Your task to perform on an android device: open app "Paramount+ | Peak Streaming" (install if not already installed) Image 0: 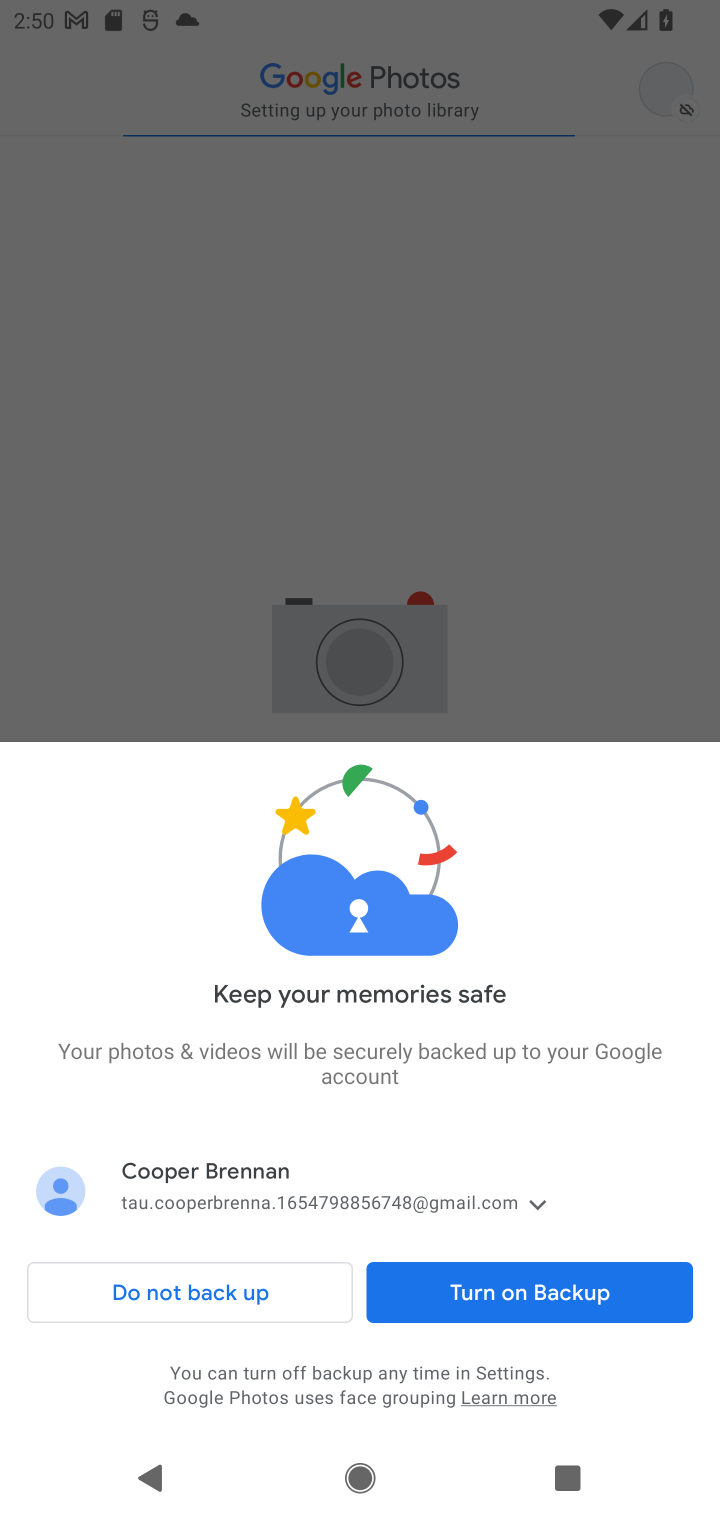
Step 0: press home button
Your task to perform on an android device: open app "Paramount+ | Peak Streaming" (install if not already installed) Image 1: 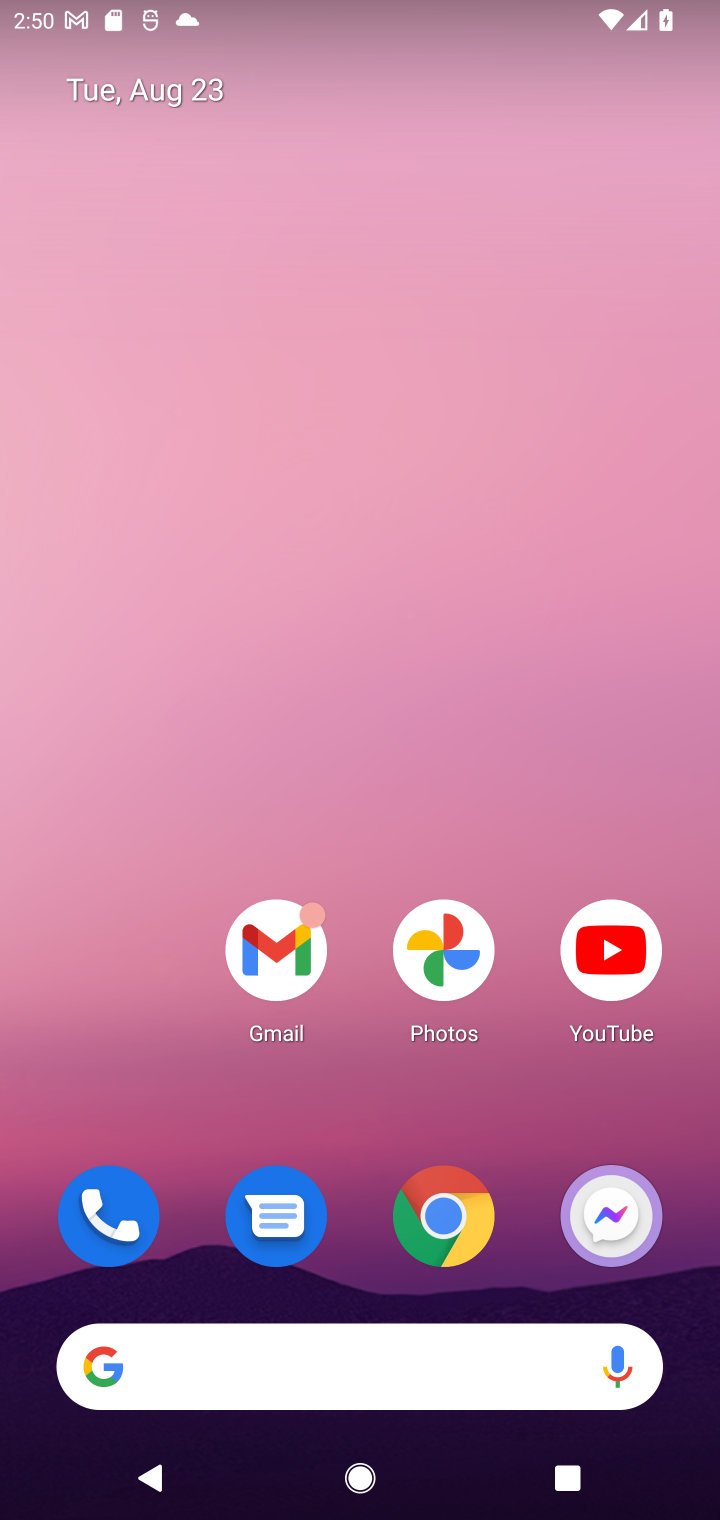
Step 1: drag from (322, 1228) to (433, 200)
Your task to perform on an android device: open app "Paramount+ | Peak Streaming" (install if not already installed) Image 2: 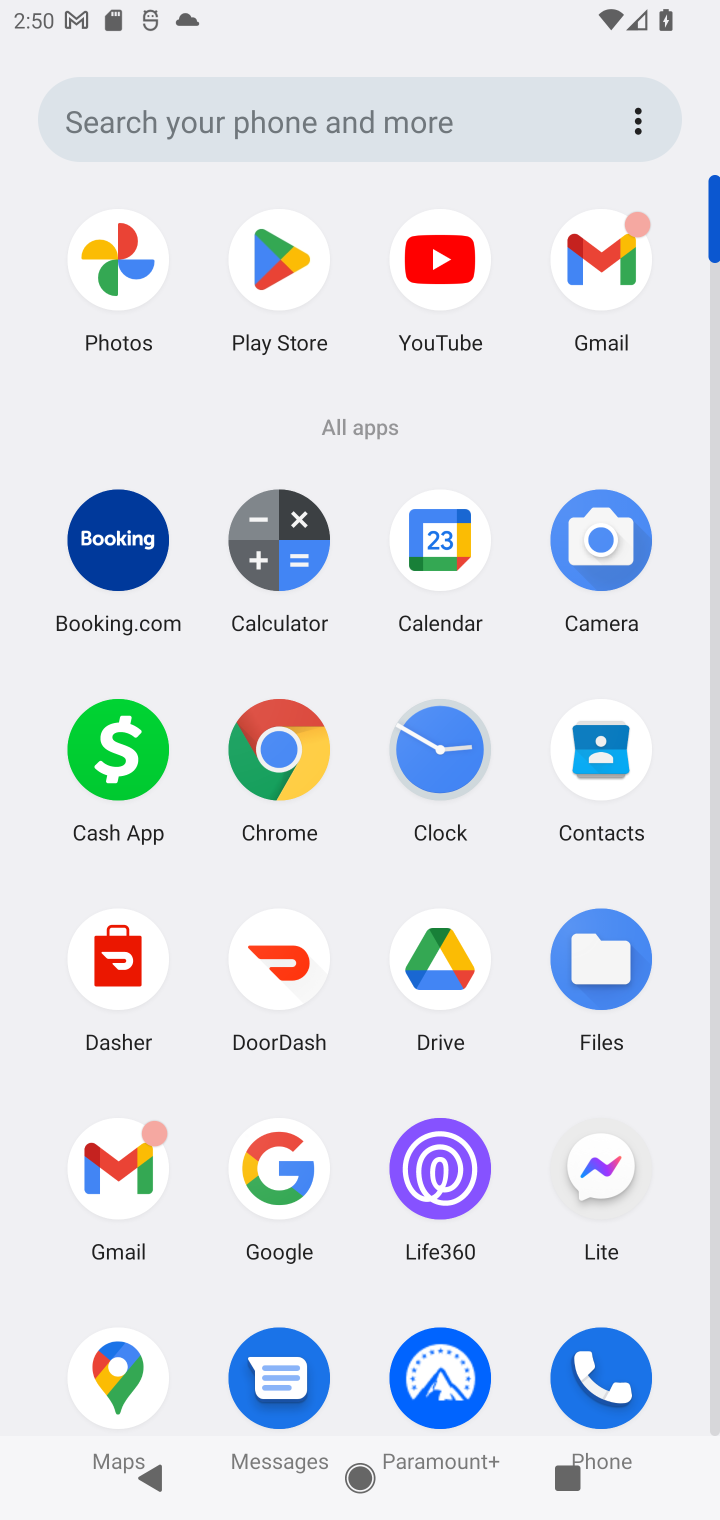
Step 2: click (250, 235)
Your task to perform on an android device: open app "Paramount+ | Peak Streaming" (install if not already installed) Image 3: 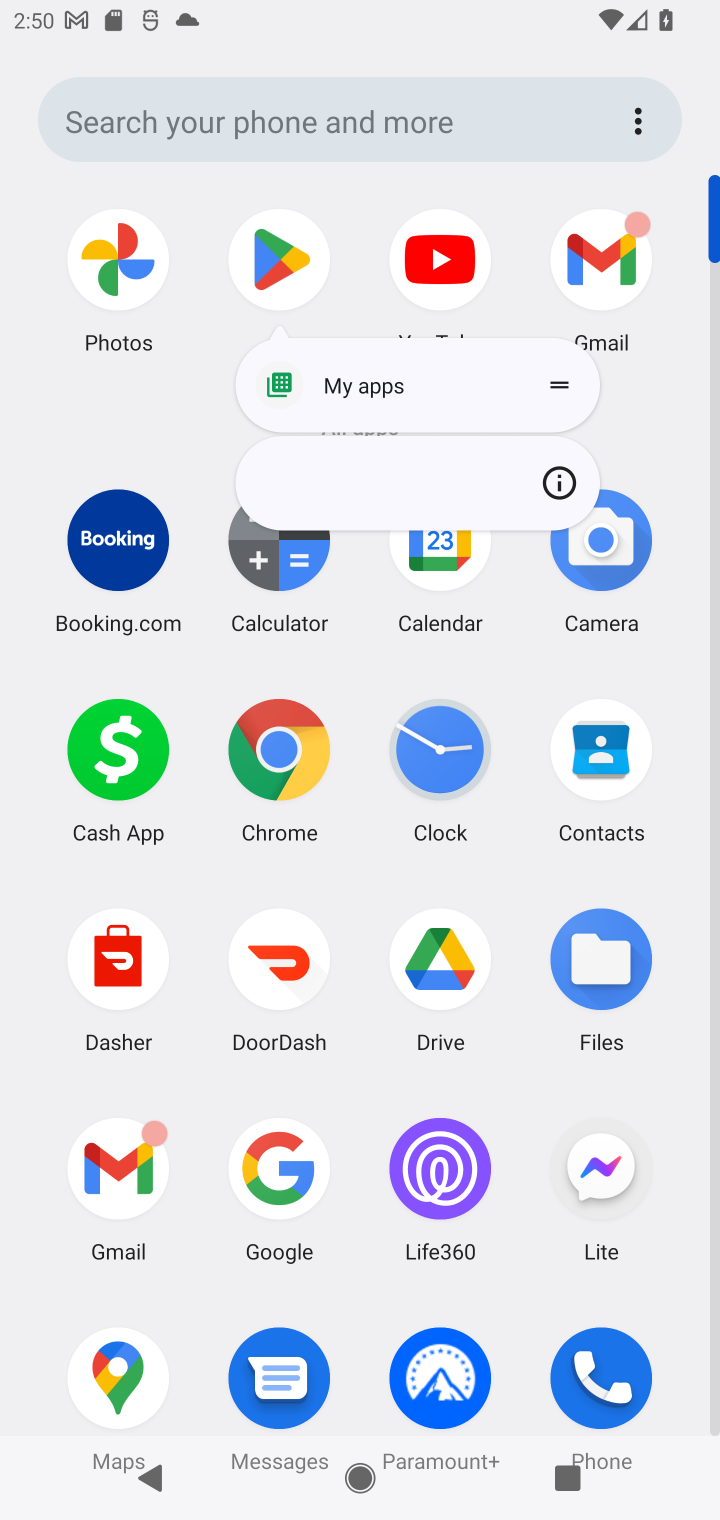
Step 3: click (273, 268)
Your task to perform on an android device: open app "Paramount+ | Peak Streaming" (install if not already installed) Image 4: 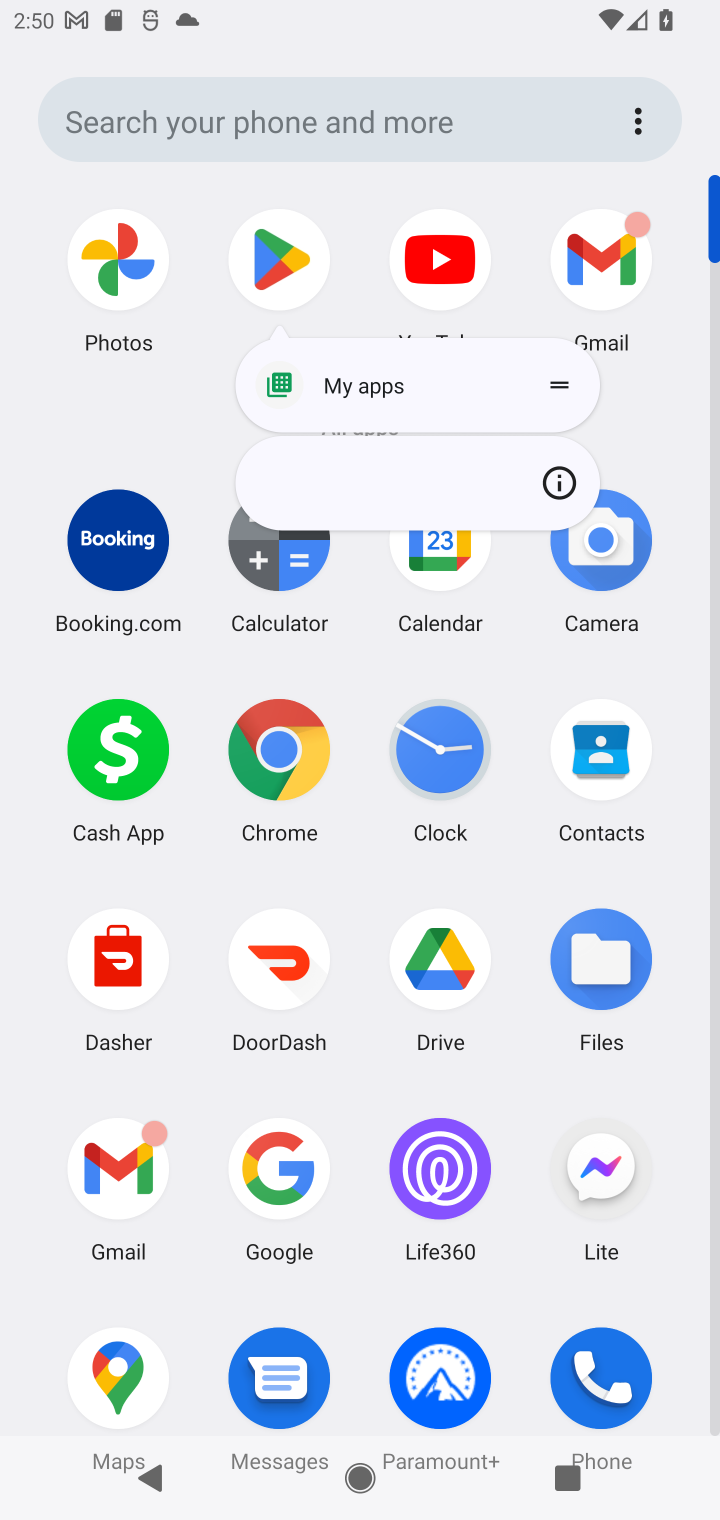
Step 4: click (253, 256)
Your task to perform on an android device: open app "Paramount+ | Peak Streaming" (install if not already installed) Image 5: 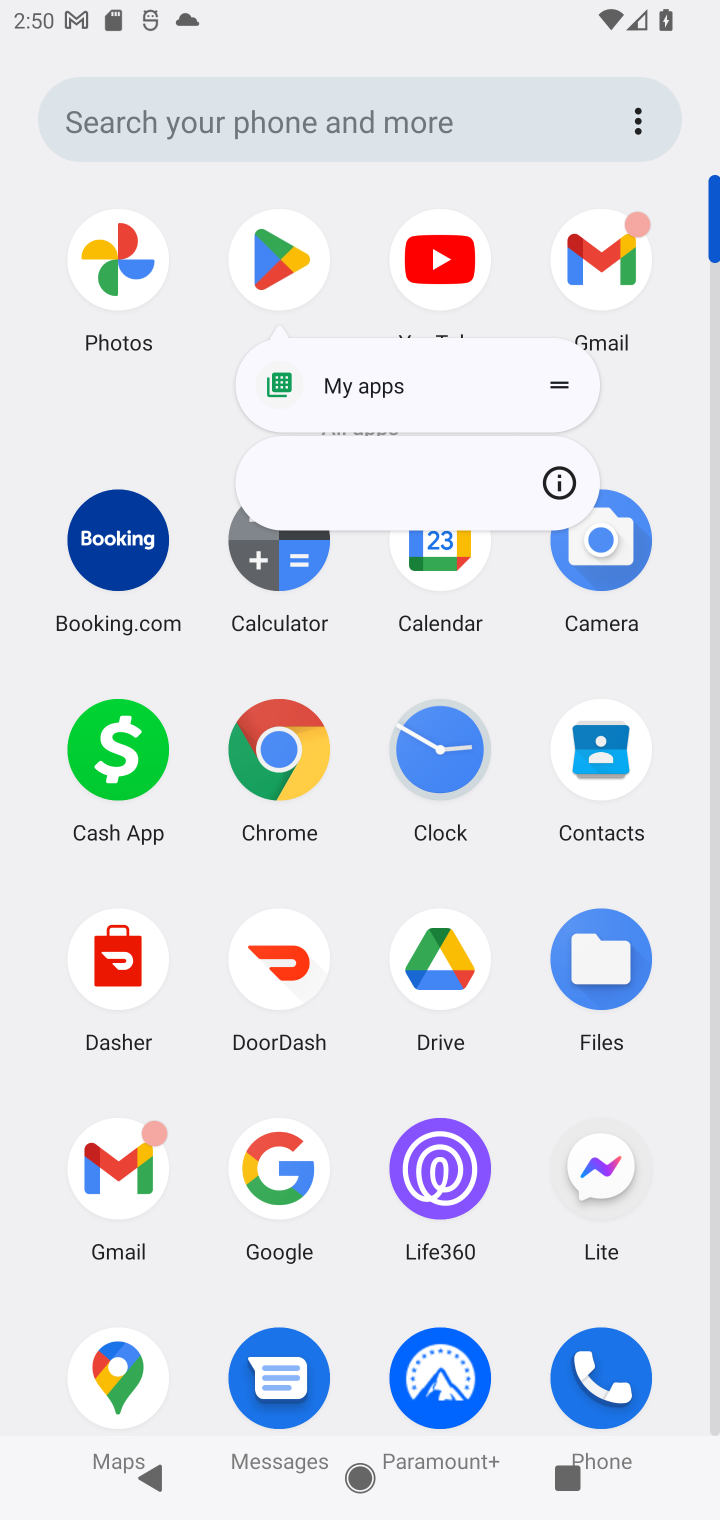
Step 5: click (259, 256)
Your task to perform on an android device: open app "Paramount+ | Peak Streaming" (install if not already installed) Image 6: 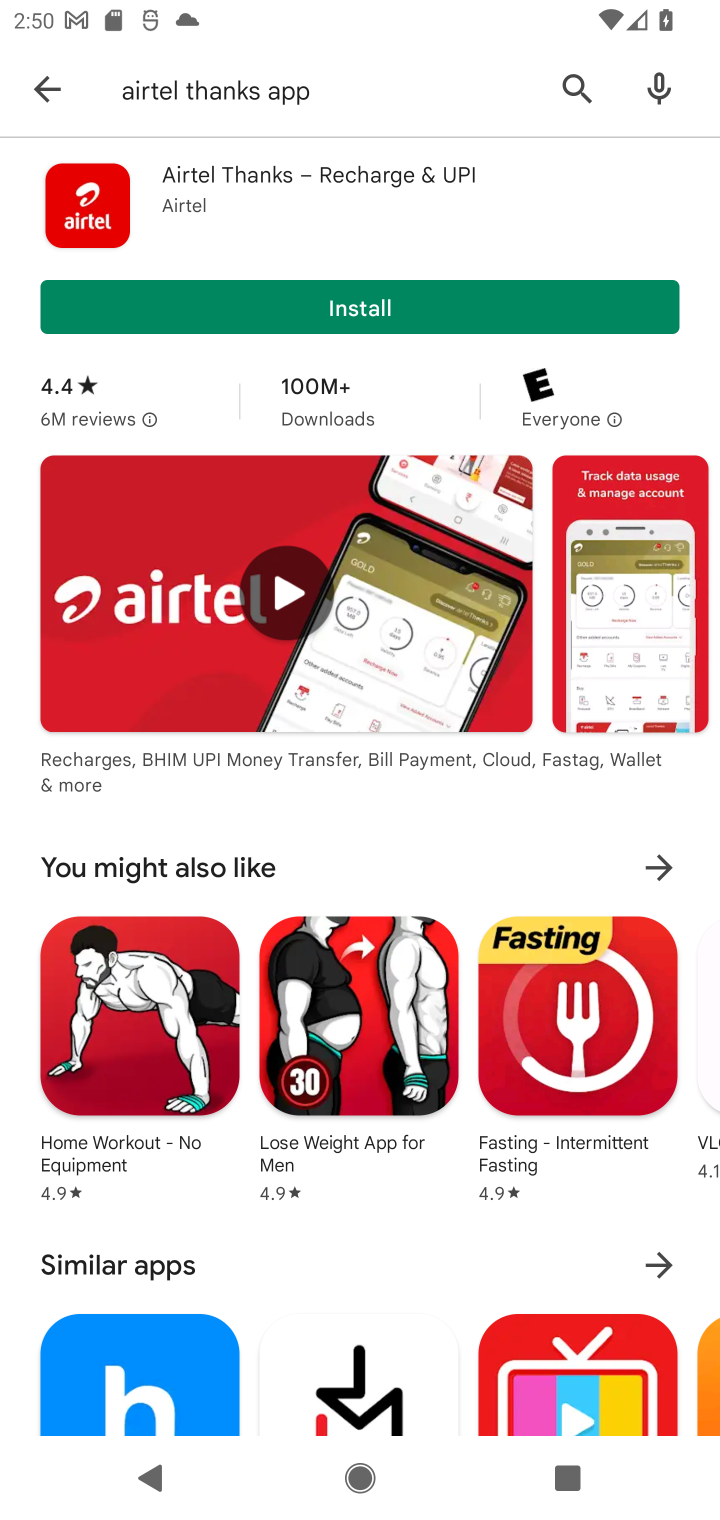
Step 6: click (45, 71)
Your task to perform on an android device: open app "Paramount+ | Peak Streaming" (install if not already installed) Image 7: 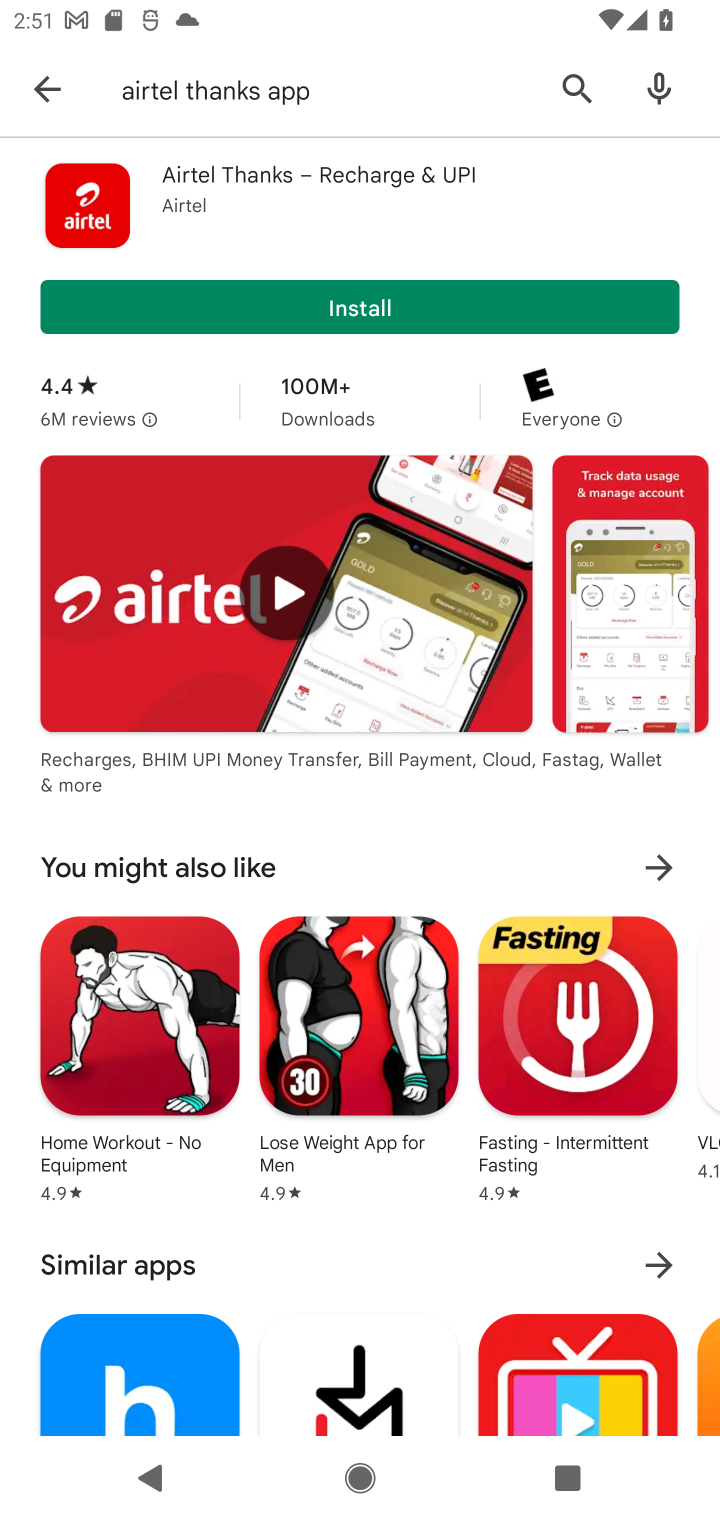
Step 7: click (45, 71)
Your task to perform on an android device: open app "Paramount+ | Peak Streaming" (install if not already installed) Image 8: 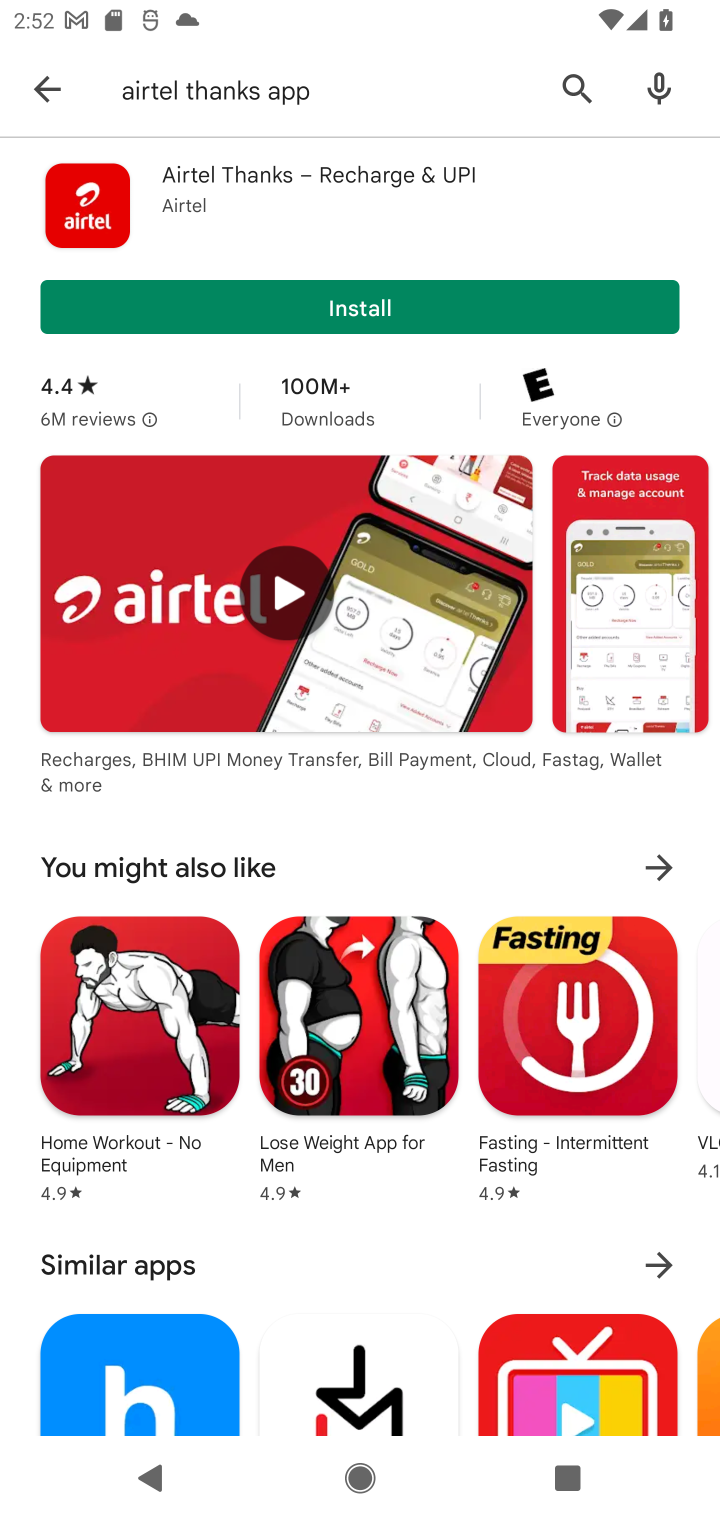
Step 8: click (56, 65)
Your task to perform on an android device: open app "Paramount+ | Peak Streaming" (install if not already installed) Image 9: 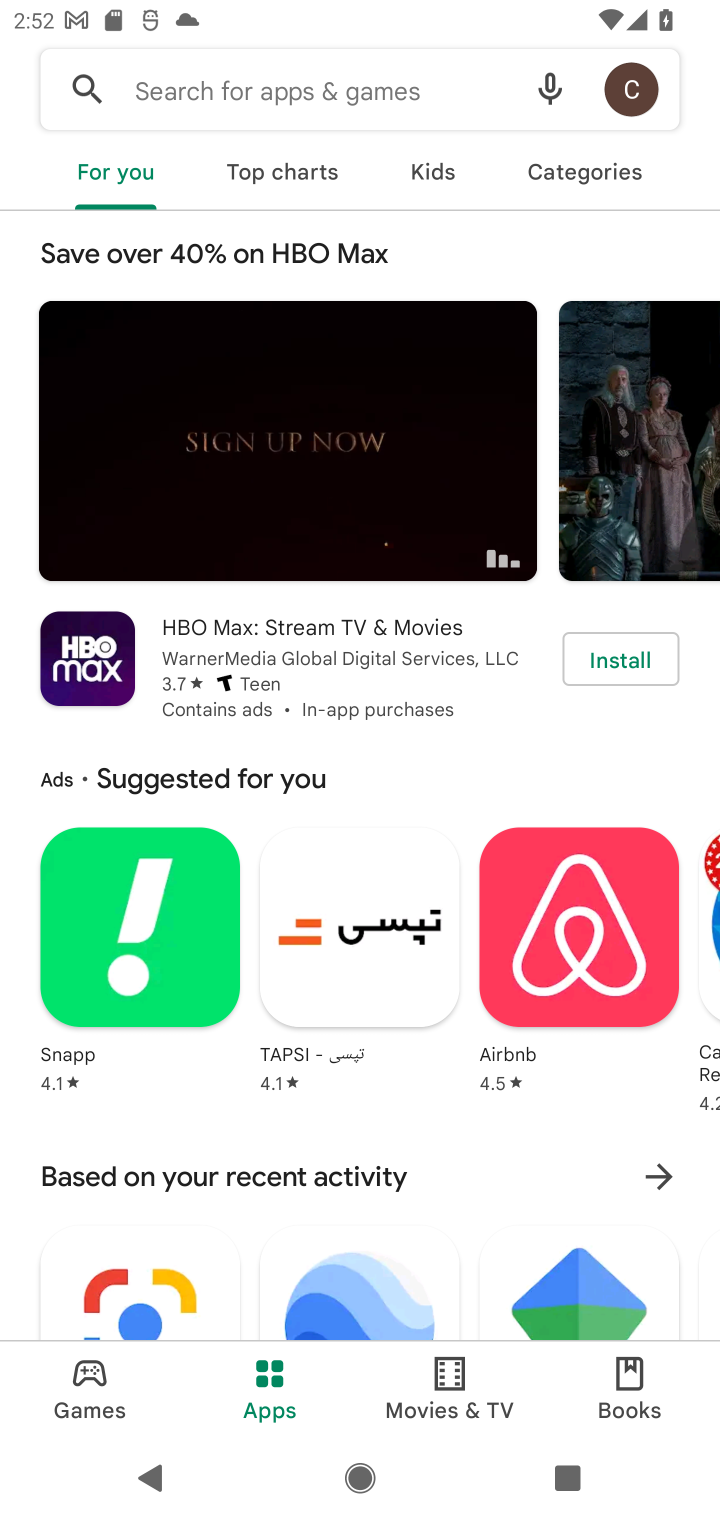
Step 9: click (290, 85)
Your task to perform on an android device: open app "Paramount+ | Peak Streaming" (install if not already installed) Image 10: 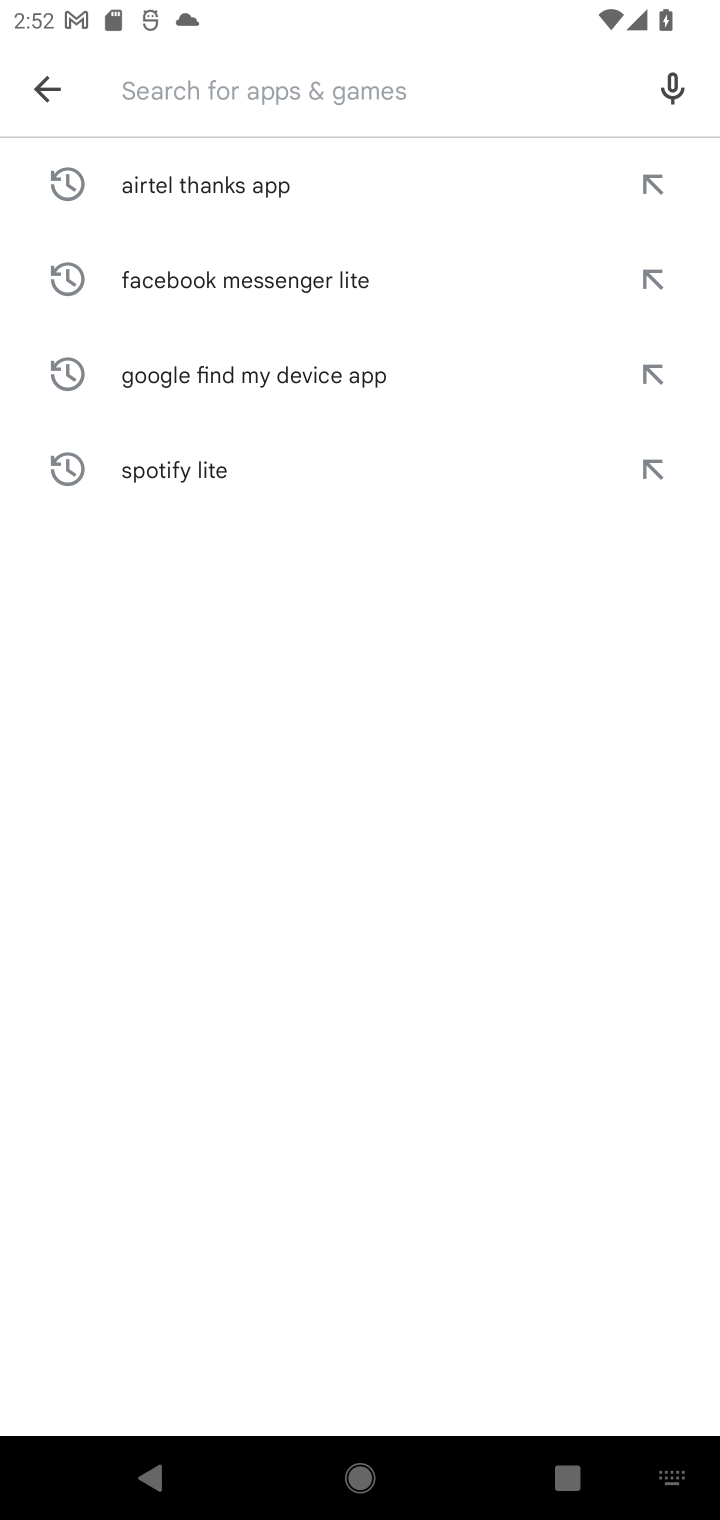
Step 10: type "Paramount+  "
Your task to perform on an android device: open app "Paramount+ | Peak Streaming" (install if not already installed) Image 11: 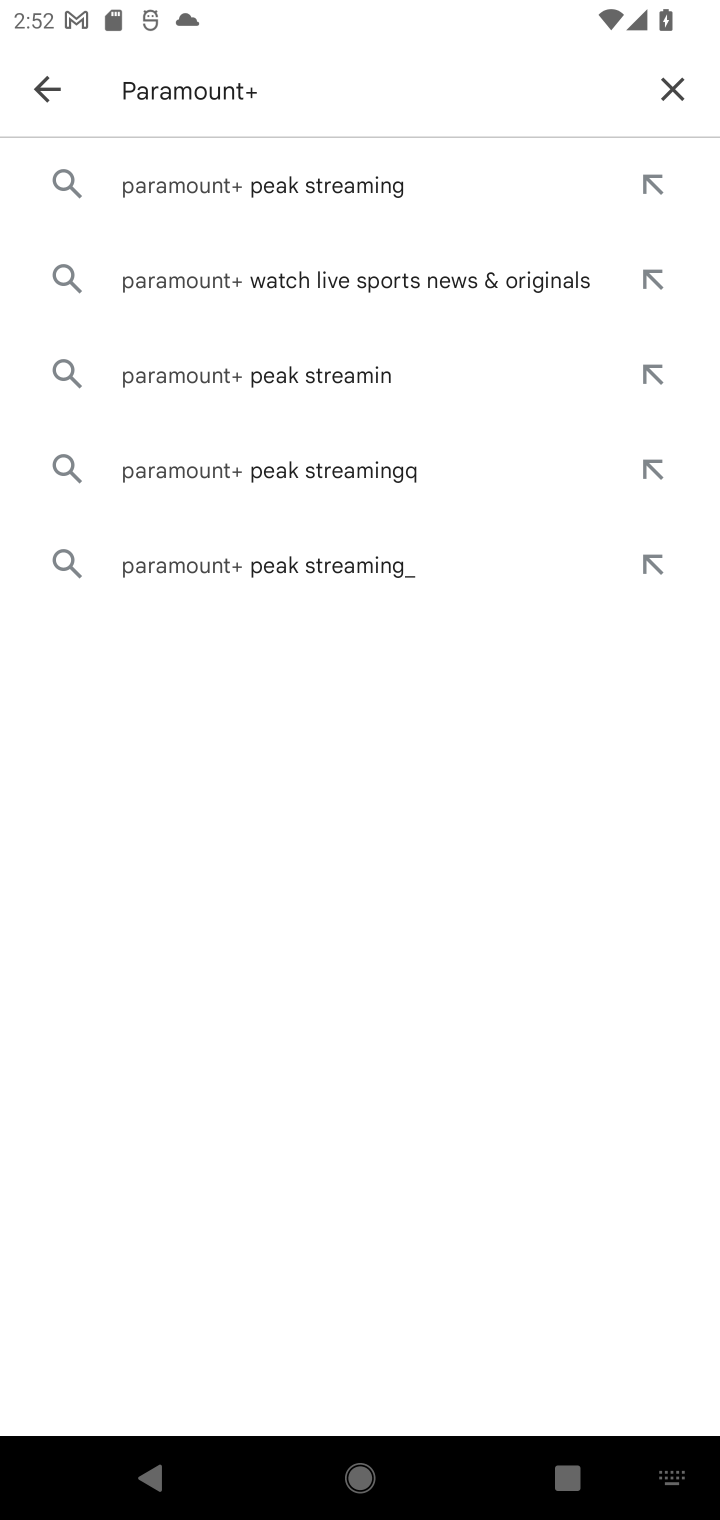
Step 11: click (322, 163)
Your task to perform on an android device: open app "Paramount+ | Peak Streaming" (install if not already installed) Image 12: 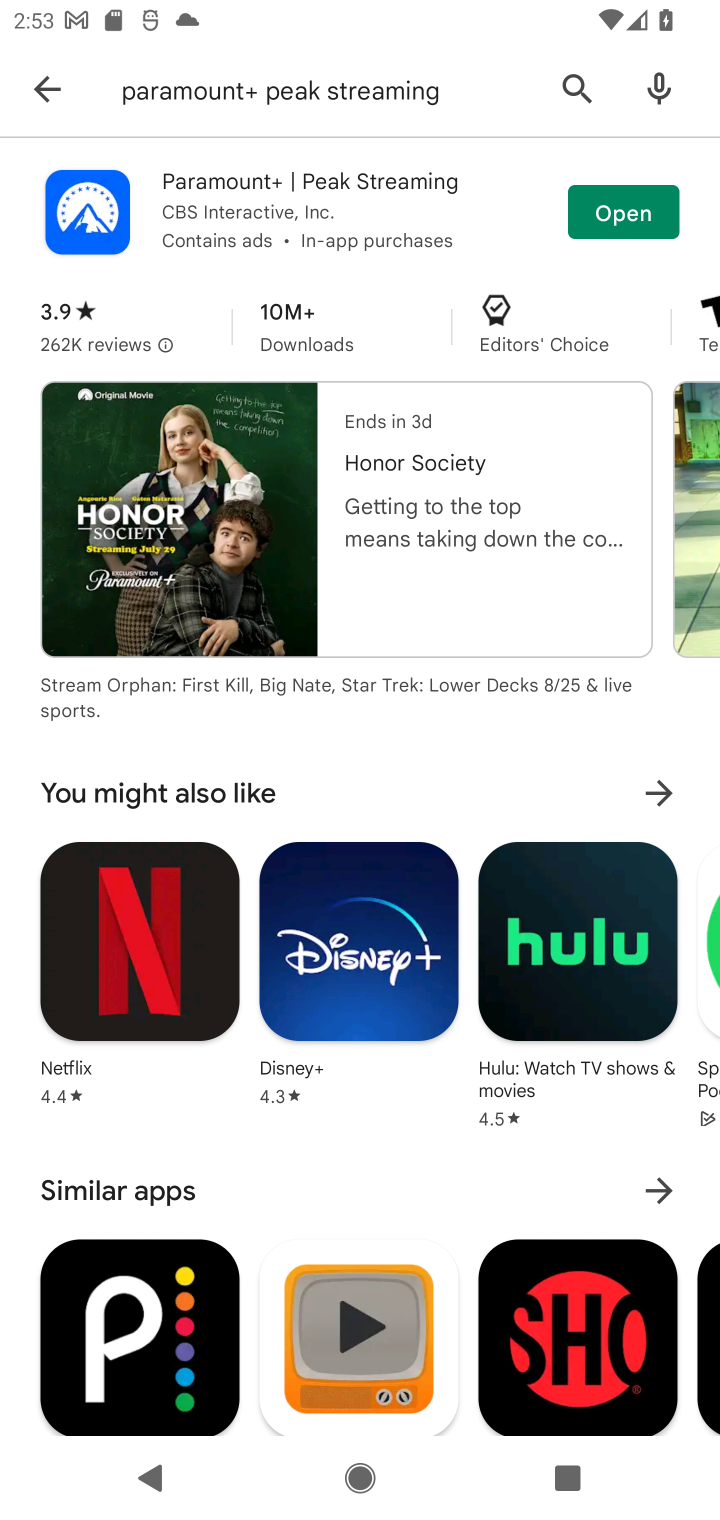
Step 12: click (618, 187)
Your task to perform on an android device: open app "Paramount+ | Peak Streaming" (install if not already installed) Image 13: 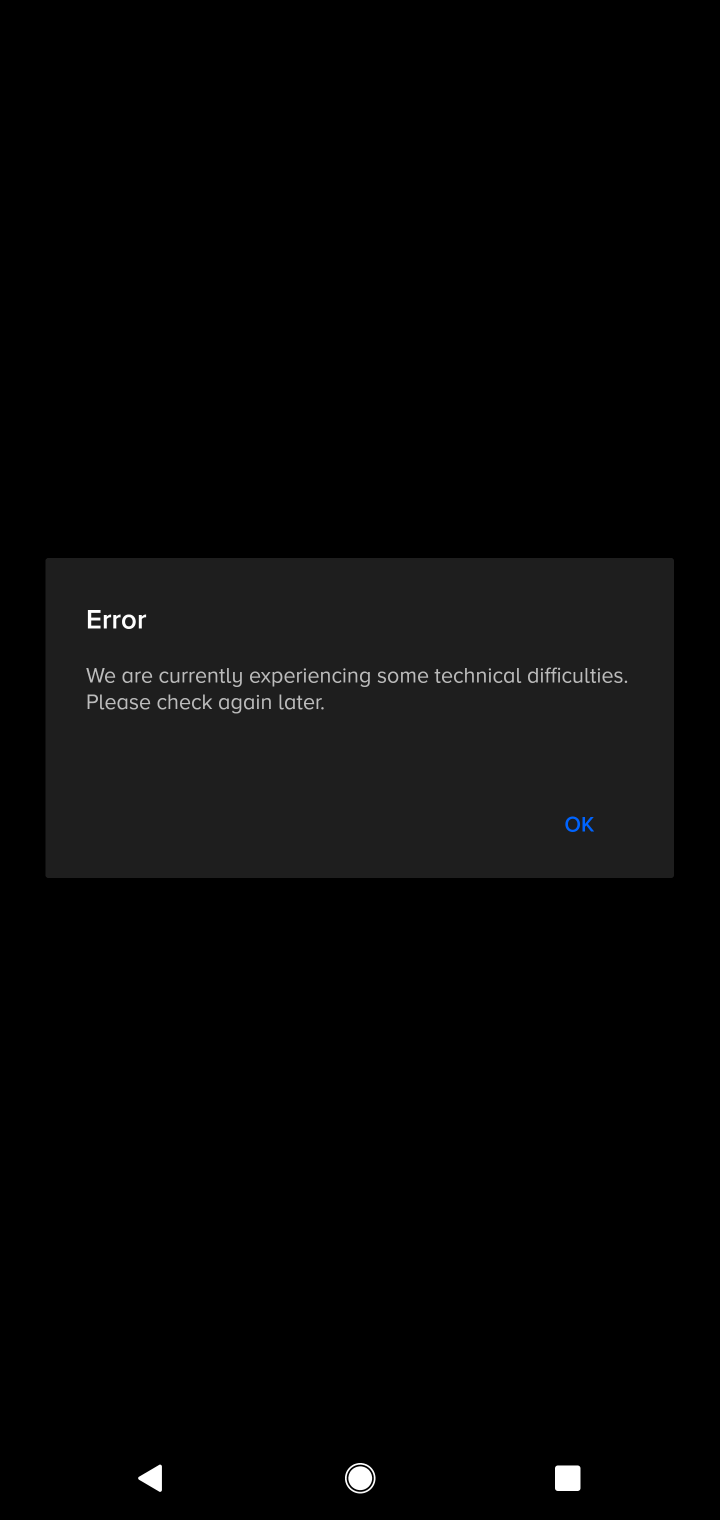
Step 13: click (547, 818)
Your task to perform on an android device: open app "Paramount+ | Peak Streaming" (install if not already installed) Image 14: 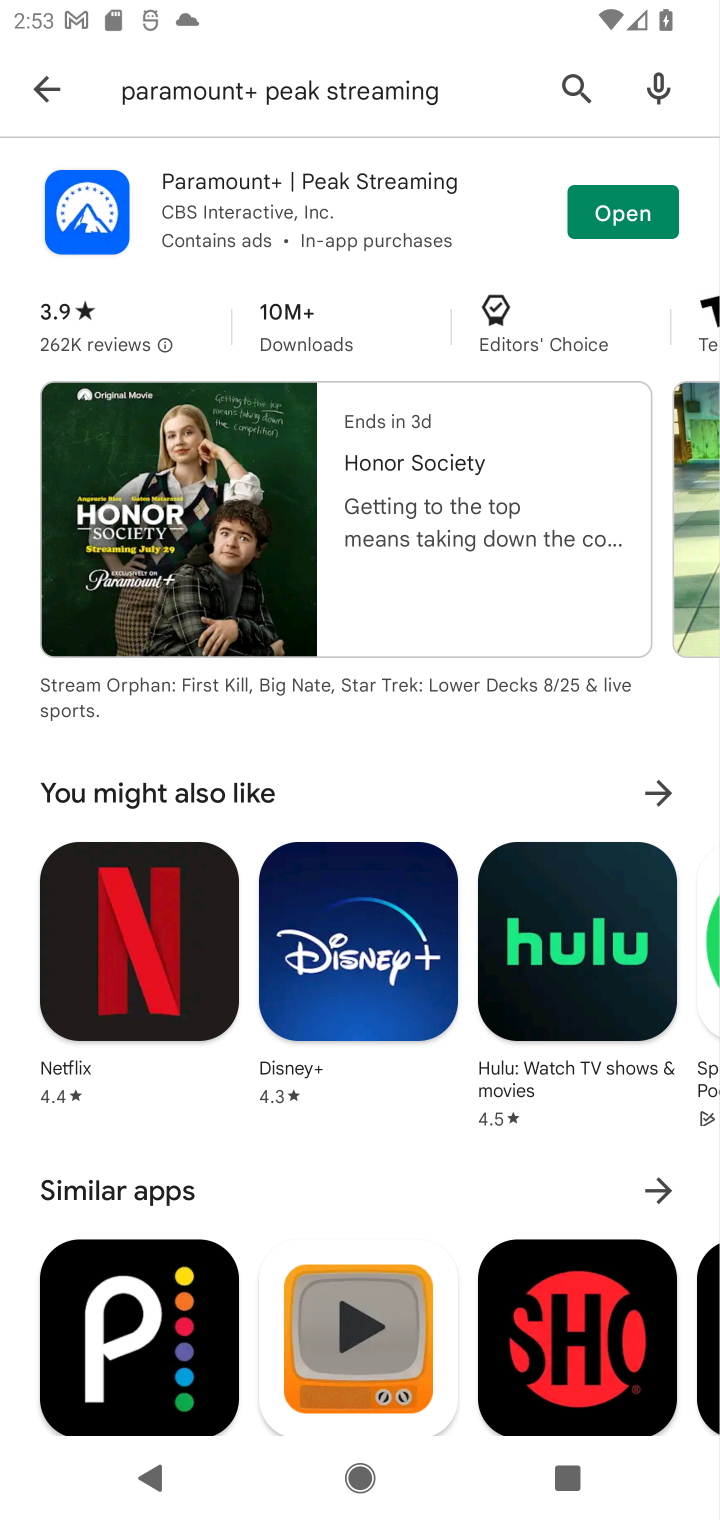
Step 14: task complete